Your task to perform on an android device: turn on notifications settings in the gmail app Image 0: 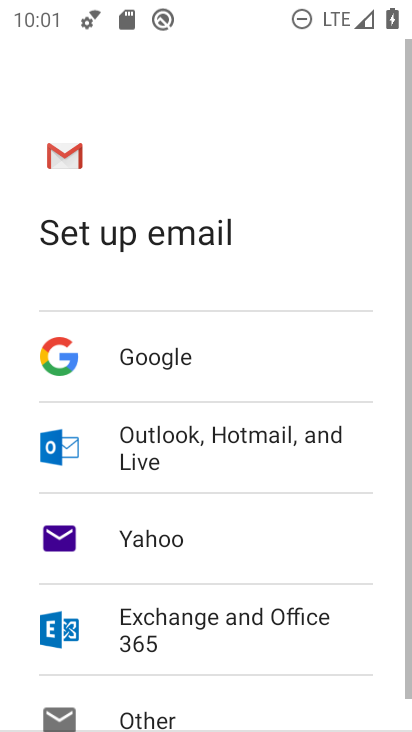
Step 0: press home button
Your task to perform on an android device: turn on notifications settings in the gmail app Image 1: 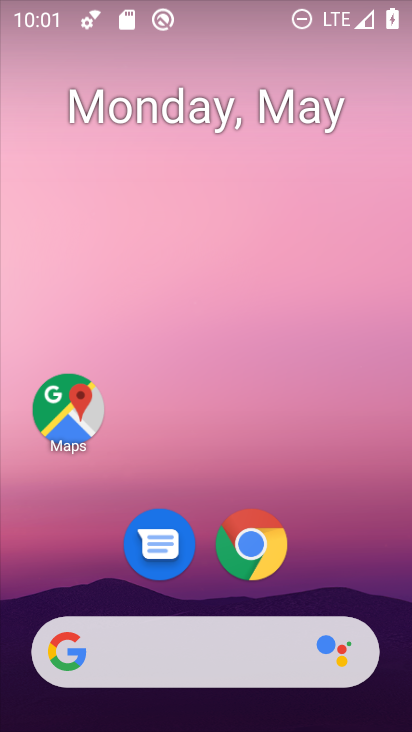
Step 1: drag from (357, 543) to (330, 104)
Your task to perform on an android device: turn on notifications settings in the gmail app Image 2: 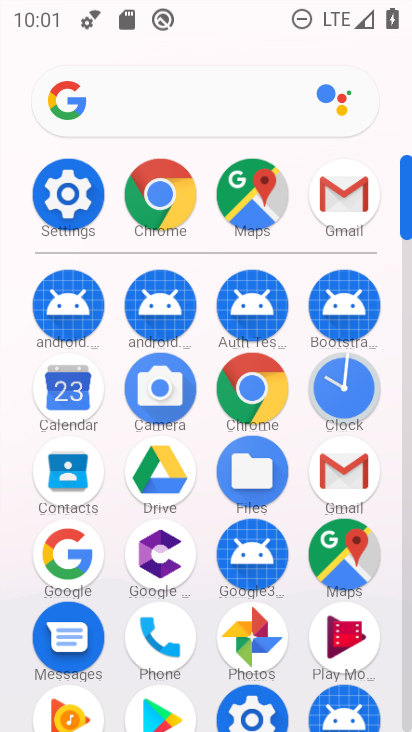
Step 2: click (328, 466)
Your task to perform on an android device: turn on notifications settings in the gmail app Image 3: 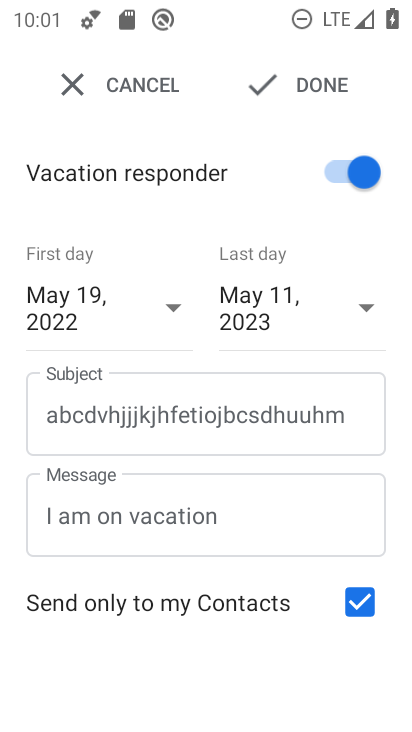
Step 3: click (78, 73)
Your task to perform on an android device: turn on notifications settings in the gmail app Image 4: 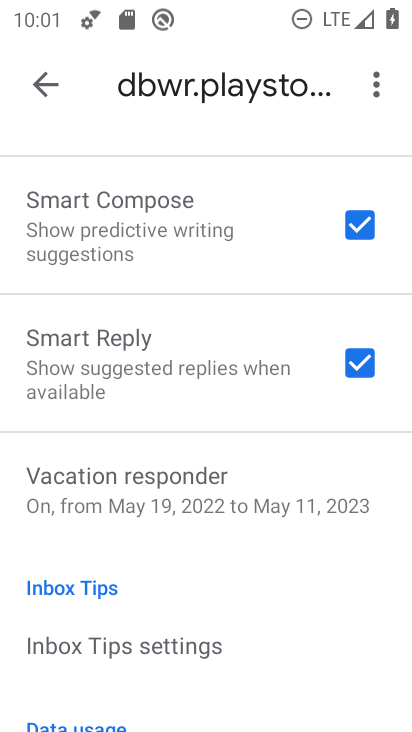
Step 4: drag from (117, 199) to (83, 699)
Your task to perform on an android device: turn on notifications settings in the gmail app Image 5: 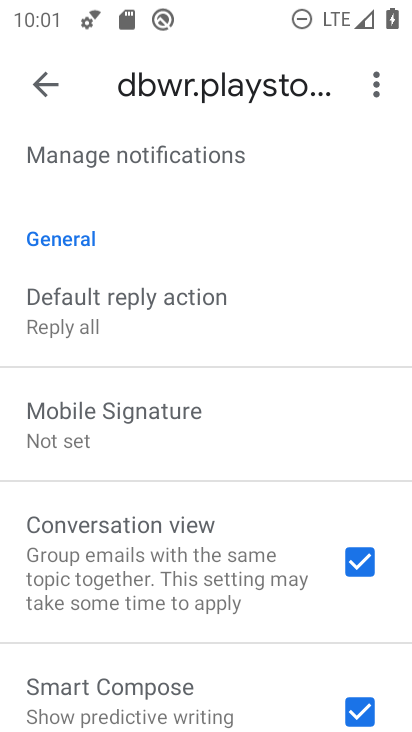
Step 5: drag from (161, 226) to (159, 669)
Your task to perform on an android device: turn on notifications settings in the gmail app Image 6: 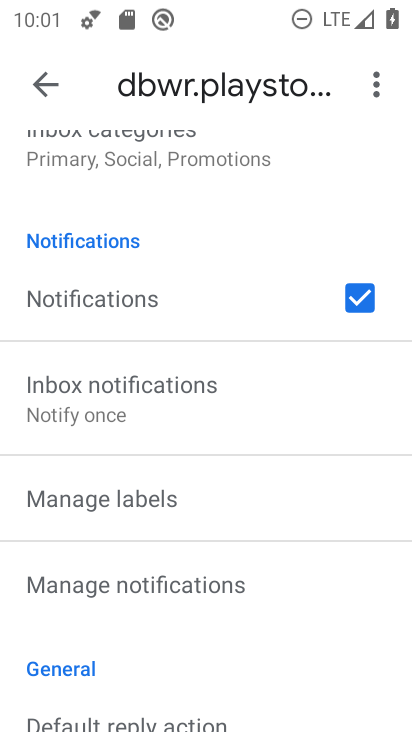
Step 6: drag from (191, 269) to (205, 650)
Your task to perform on an android device: turn on notifications settings in the gmail app Image 7: 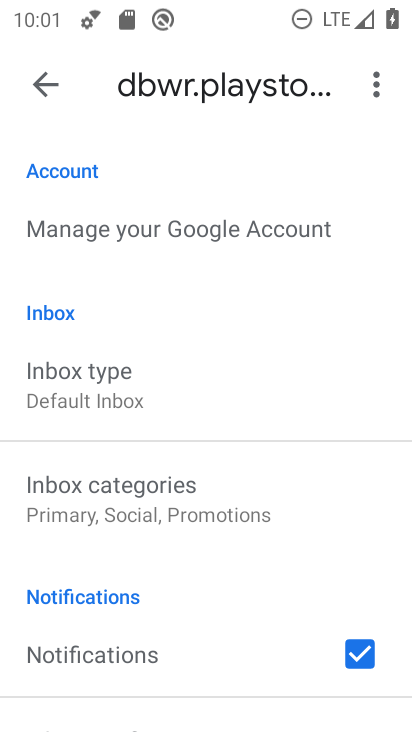
Step 7: drag from (236, 273) to (230, 646)
Your task to perform on an android device: turn on notifications settings in the gmail app Image 8: 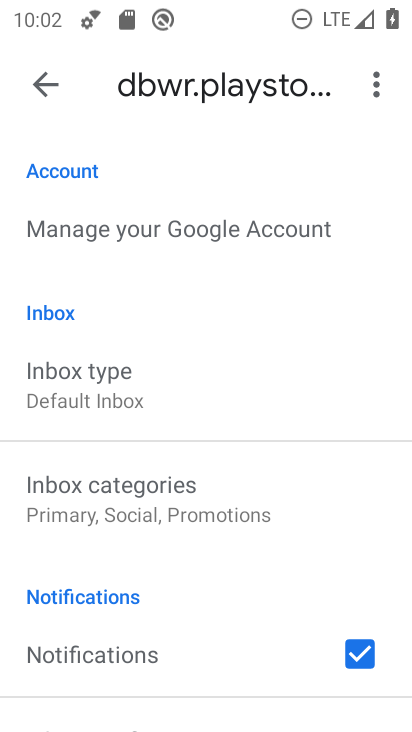
Step 8: drag from (214, 641) to (251, 329)
Your task to perform on an android device: turn on notifications settings in the gmail app Image 9: 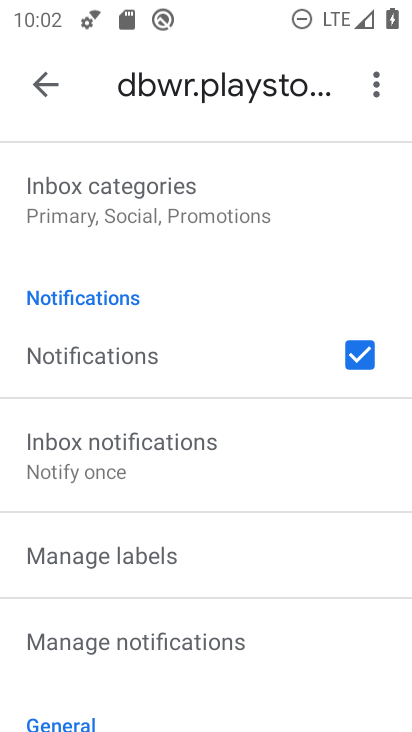
Step 9: drag from (183, 594) to (225, 409)
Your task to perform on an android device: turn on notifications settings in the gmail app Image 10: 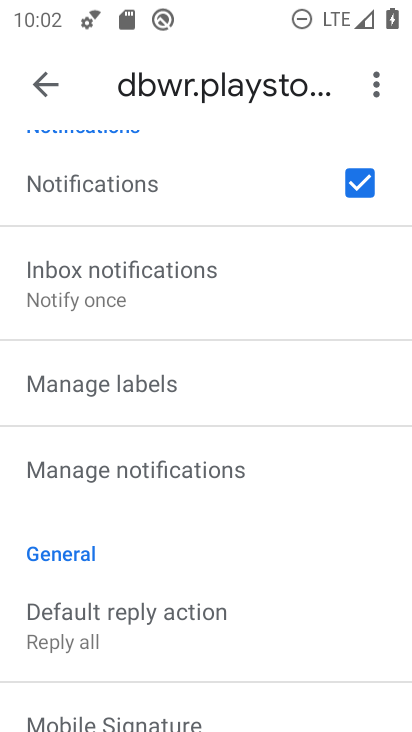
Step 10: click (113, 290)
Your task to perform on an android device: turn on notifications settings in the gmail app Image 11: 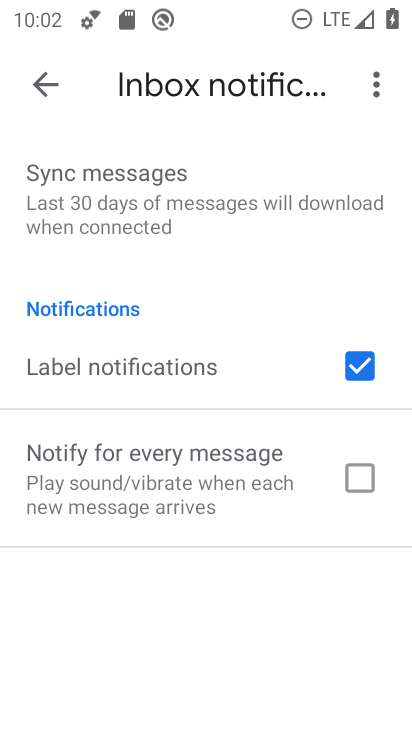
Step 11: click (35, 91)
Your task to perform on an android device: turn on notifications settings in the gmail app Image 12: 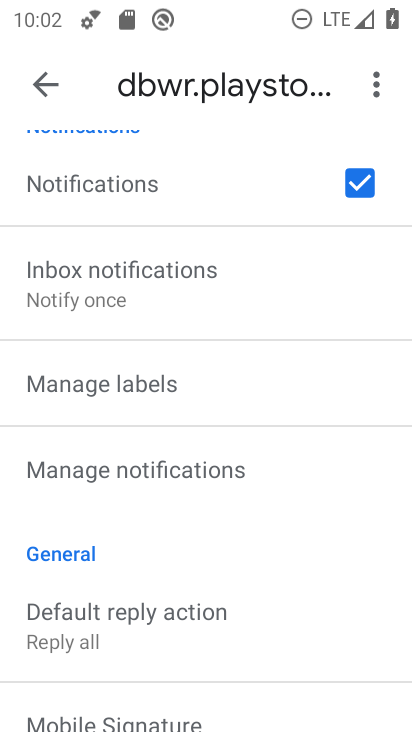
Step 12: click (115, 494)
Your task to perform on an android device: turn on notifications settings in the gmail app Image 13: 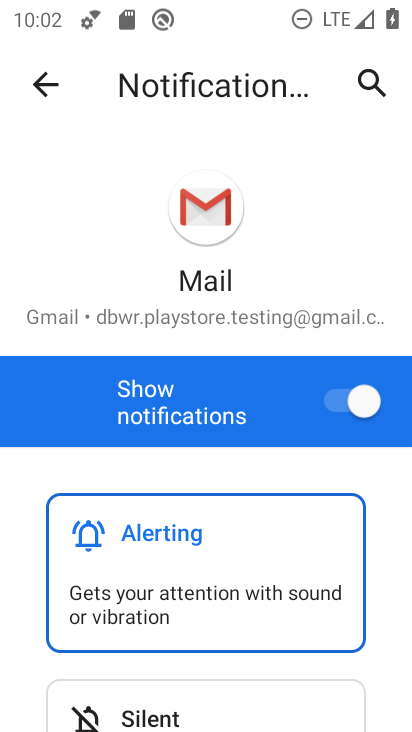
Step 13: task complete